Your task to perform on an android device: Go to notification settings Image 0: 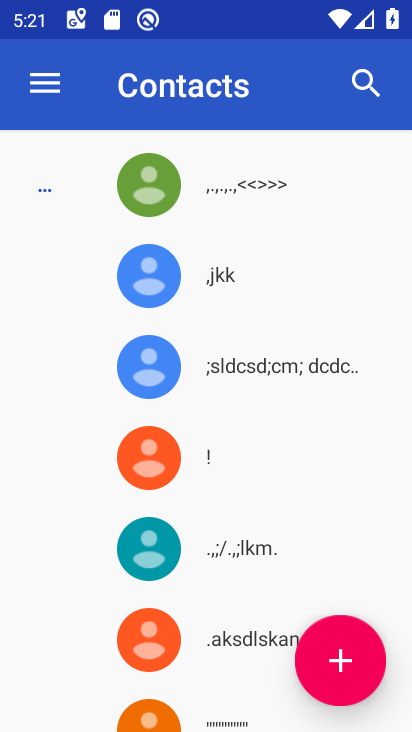
Step 0: press home button
Your task to perform on an android device: Go to notification settings Image 1: 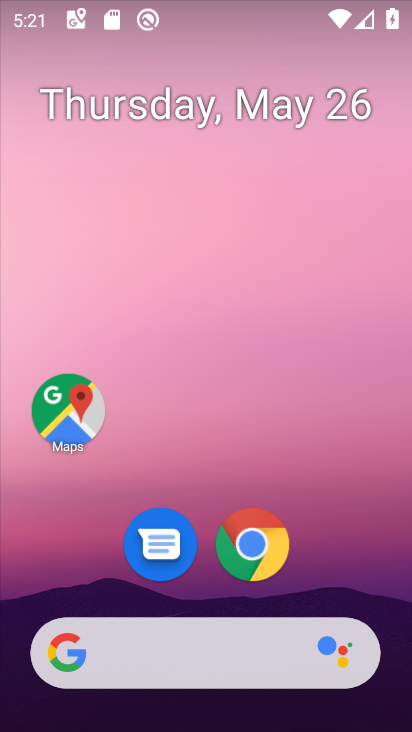
Step 1: drag from (39, 605) to (181, 161)
Your task to perform on an android device: Go to notification settings Image 2: 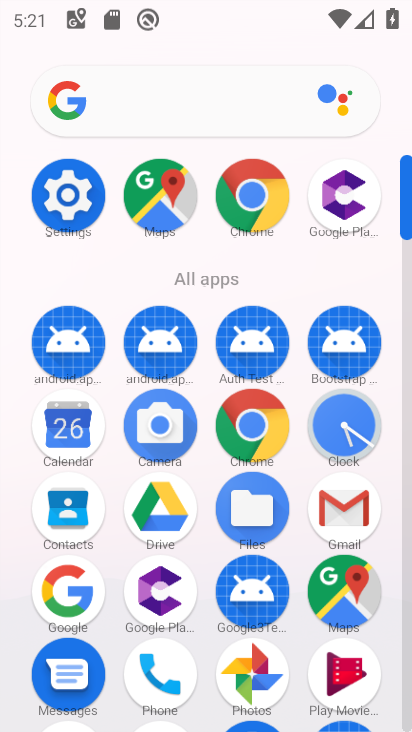
Step 2: drag from (190, 565) to (284, 288)
Your task to perform on an android device: Go to notification settings Image 3: 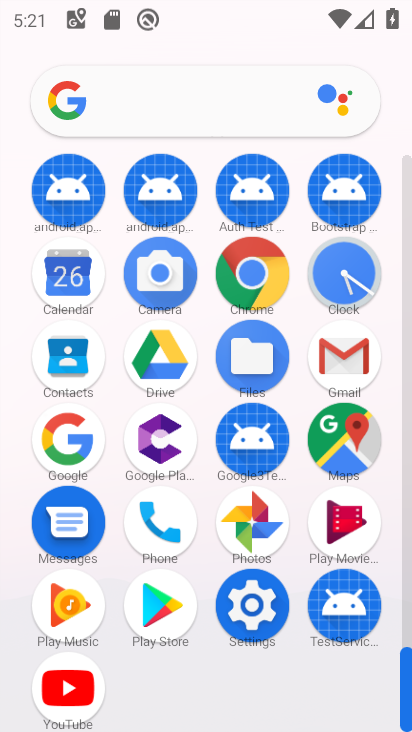
Step 3: click (270, 611)
Your task to perform on an android device: Go to notification settings Image 4: 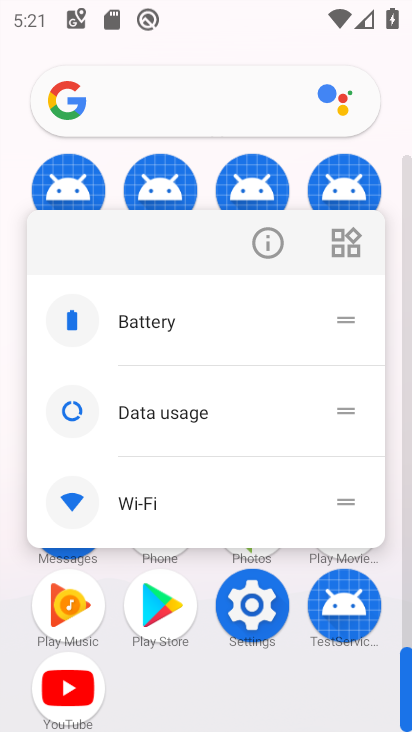
Step 4: click (270, 611)
Your task to perform on an android device: Go to notification settings Image 5: 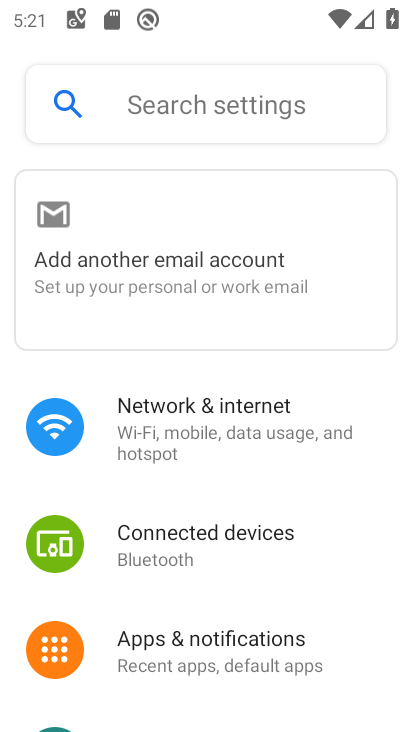
Step 5: drag from (228, 603) to (308, 344)
Your task to perform on an android device: Go to notification settings Image 6: 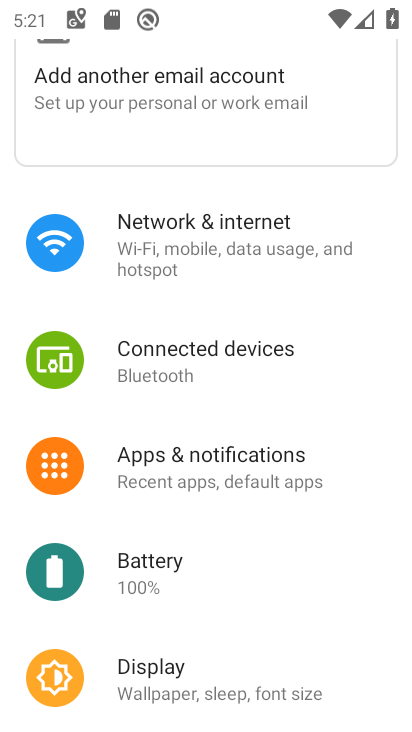
Step 6: click (272, 468)
Your task to perform on an android device: Go to notification settings Image 7: 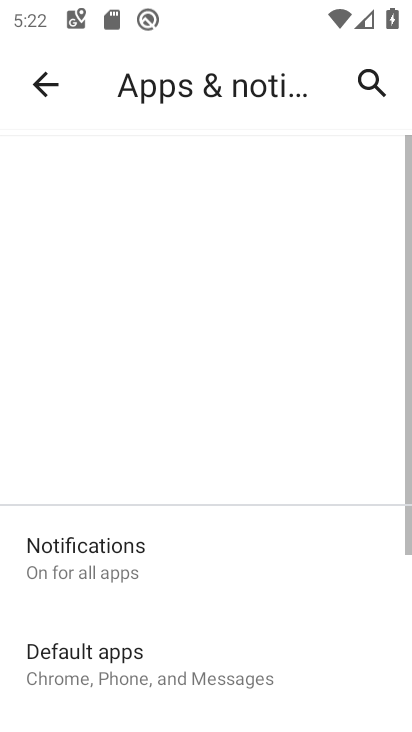
Step 7: click (226, 575)
Your task to perform on an android device: Go to notification settings Image 8: 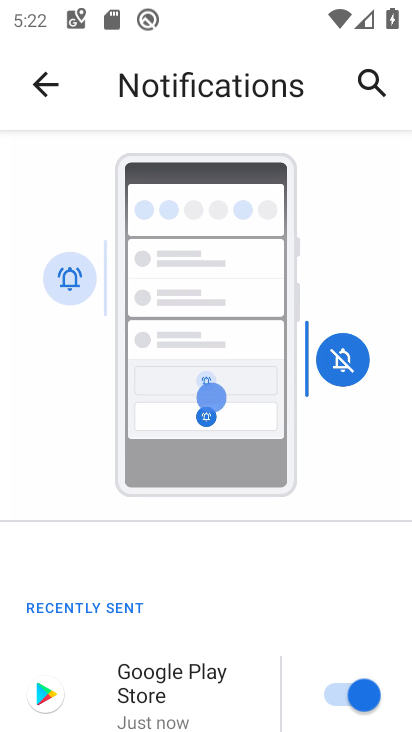
Step 8: task complete